Your task to perform on an android device: Toggle the flashlight Image 0: 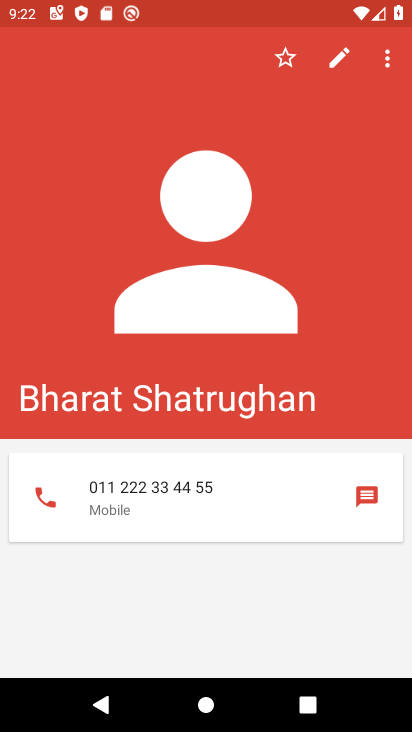
Step 0: press home button
Your task to perform on an android device: Toggle the flashlight Image 1: 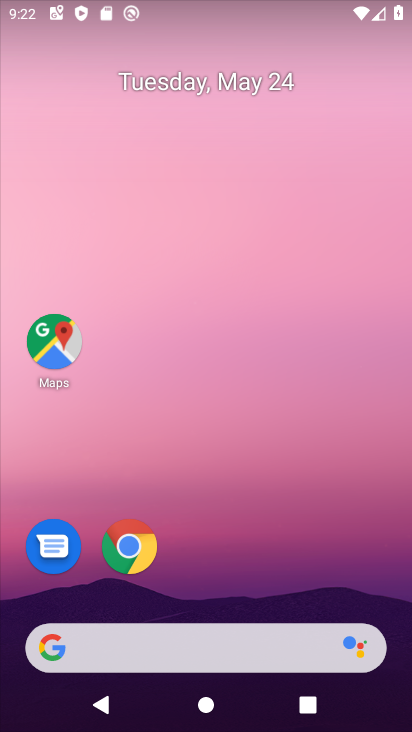
Step 1: drag from (236, 549) to (256, 42)
Your task to perform on an android device: Toggle the flashlight Image 2: 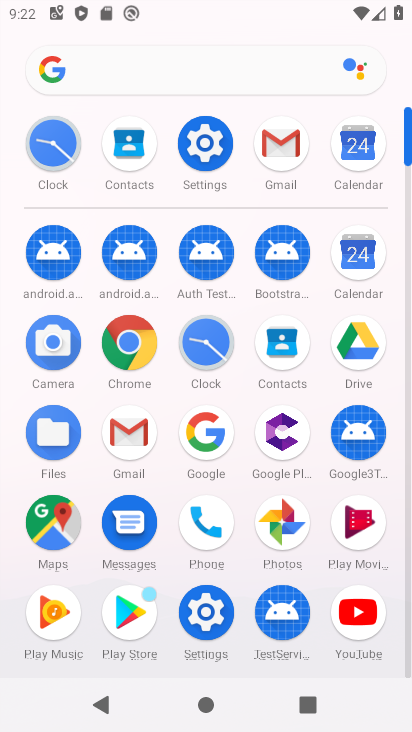
Step 2: click (225, 145)
Your task to perform on an android device: Toggle the flashlight Image 3: 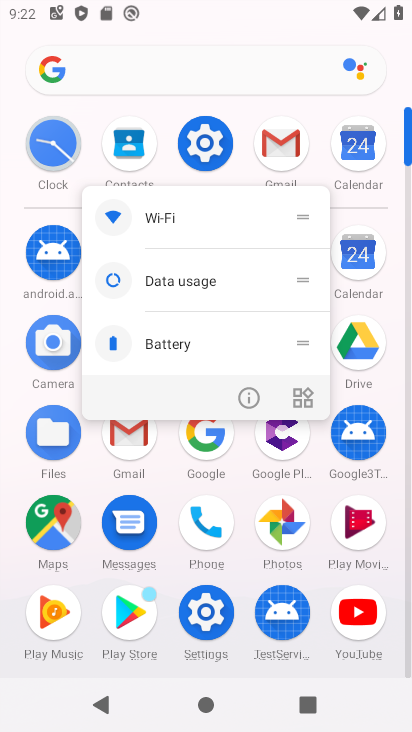
Step 3: click (203, 140)
Your task to perform on an android device: Toggle the flashlight Image 4: 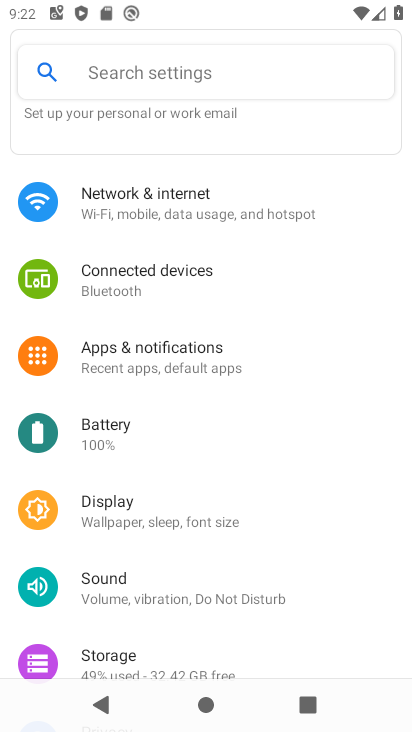
Step 4: drag from (203, 148) to (180, 397)
Your task to perform on an android device: Toggle the flashlight Image 5: 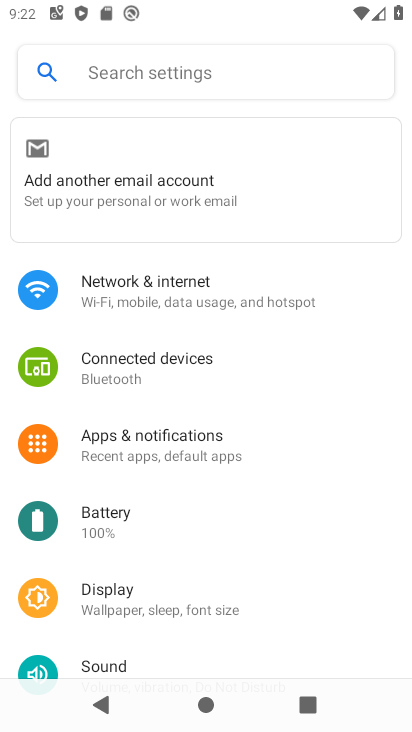
Step 5: click (213, 69)
Your task to perform on an android device: Toggle the flashlight Image 6: 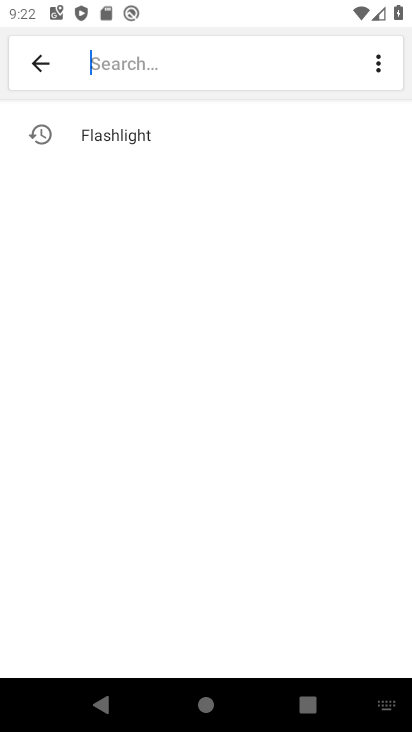
Step 6: click (131, 135)
Your task to perform on an android device: Toggle the flashlight Image 7: 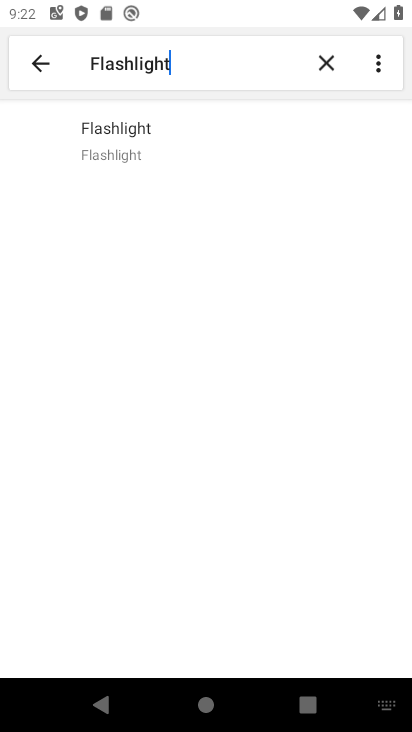
Step 7: click (131, 133)
Your task to perform on an android device: Toggle the flashlight Image 8: 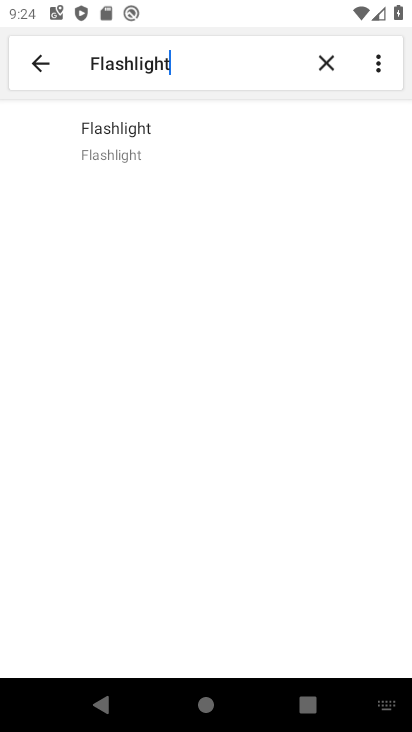
Step 8: task complete